Your task to perform on an android device: Open display settings Image 0: 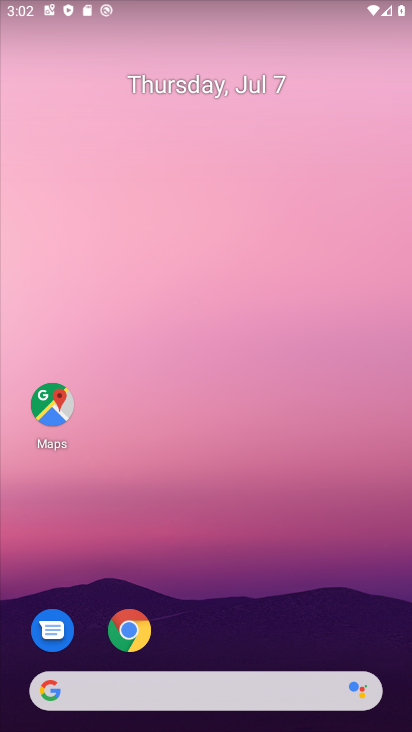
Step 0: drag from (225, 645) to (246, 80)
Your task to perform on an android device: Open display settings Image 1: 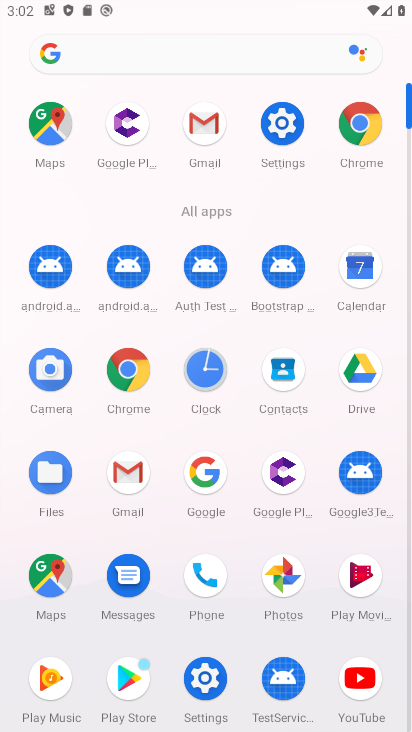
Step 1: click (203, 681)
Your task to perform on an android device: Open display settings Image 2: 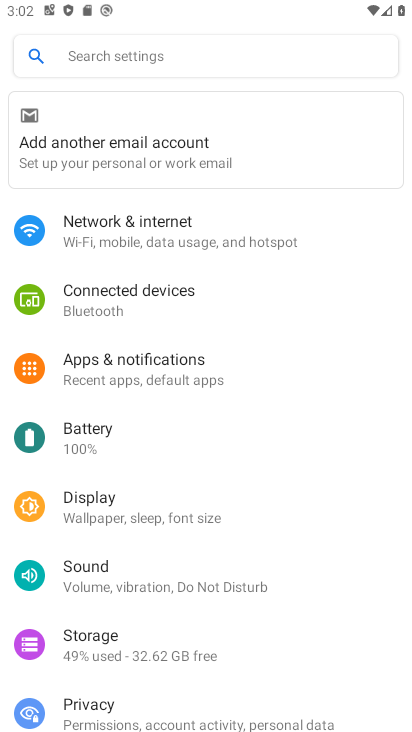
Step 2: click (126, 517)
Your task to perform on an android device: Open display settings Image 3: 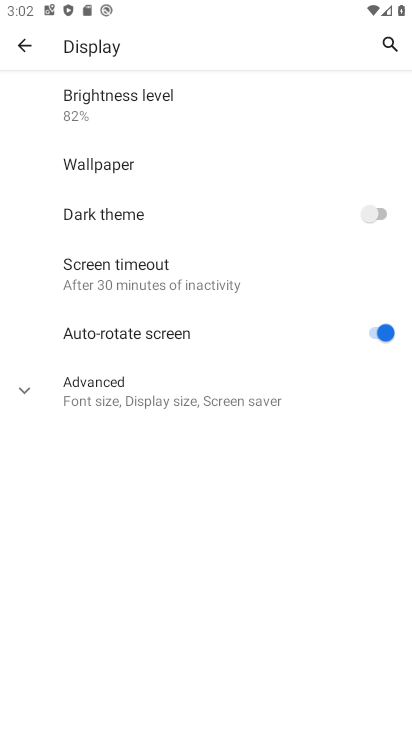
Step 3: task complete